Your task to perform on an android device: turn on location history Image 0: 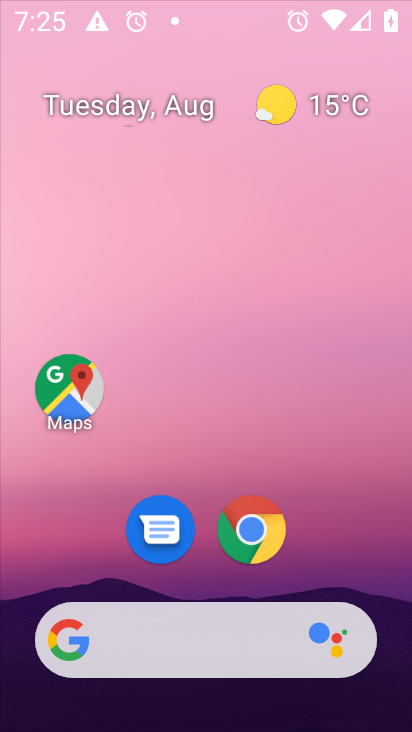
Step 0: press home button
Your task to perform on an android device: turn on location history Image 1: 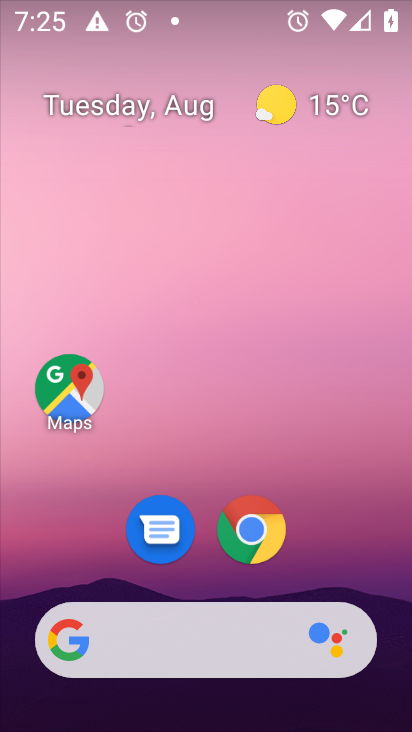
Step 1: drag from (215, 561) to (298, 67)
Your task to perform on an android device: turn on location history Image 2: 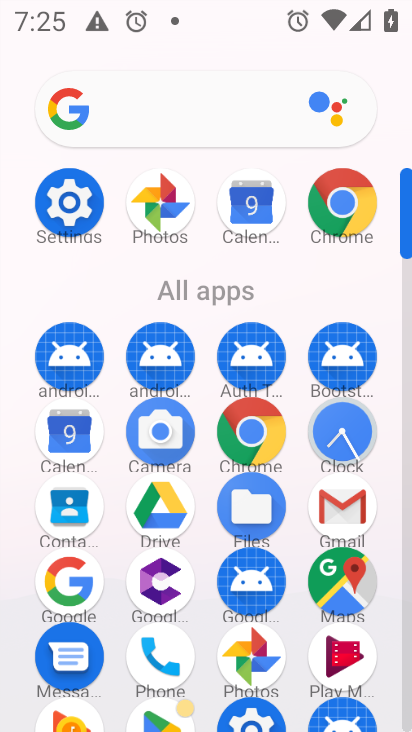
Step 2: click (53, 198)
Your task to perform on an android device: turn on location history Image 3: 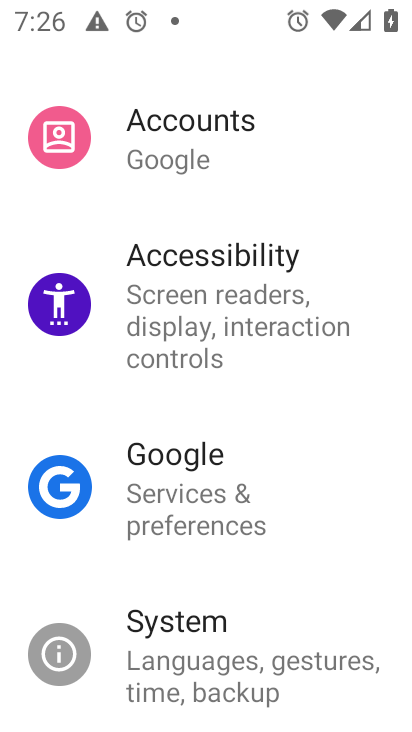
Step 3: drag from (331, 191) to (272, 679)
Your task to perform on an android device: turn on location history Image 4: 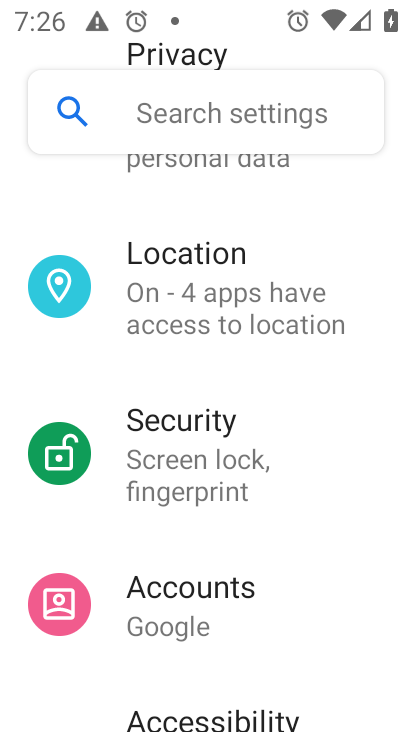
Step 4: click (181, 345)
Your task to perform on an android device: turn on location history Image 5: 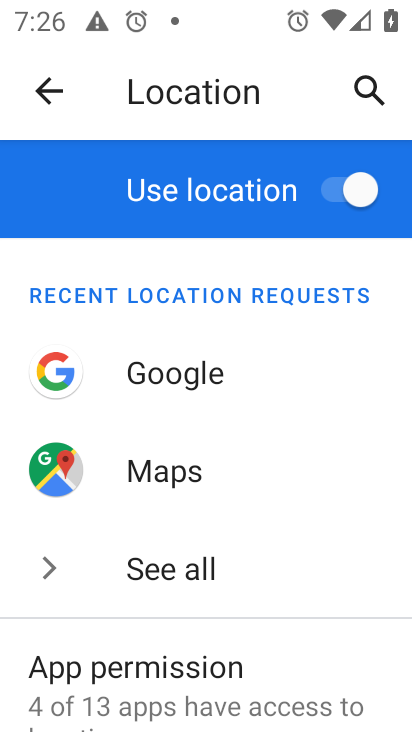
Step 5: drag from (285, 480) to (252, 5)
Your task to perform on an android device: turn on location history Image 6: 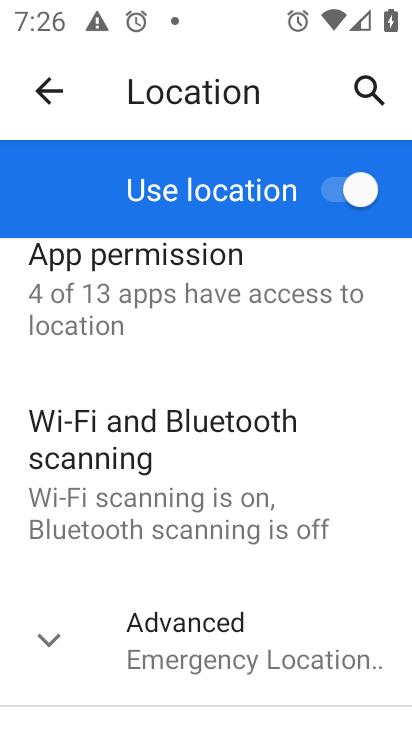
Step 6: drag from (325, 576) to (339, 139)
Your task to perform on an android device: turn on location history Image 7: 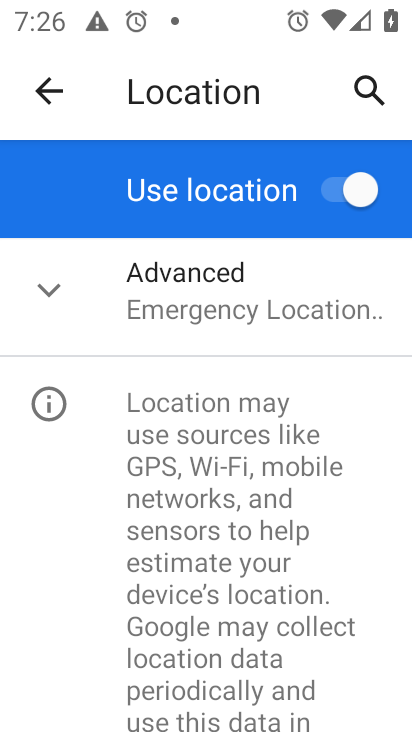
Step 7: click (196, 300)
Your task to perform on an android device: turn on location history Image 8: 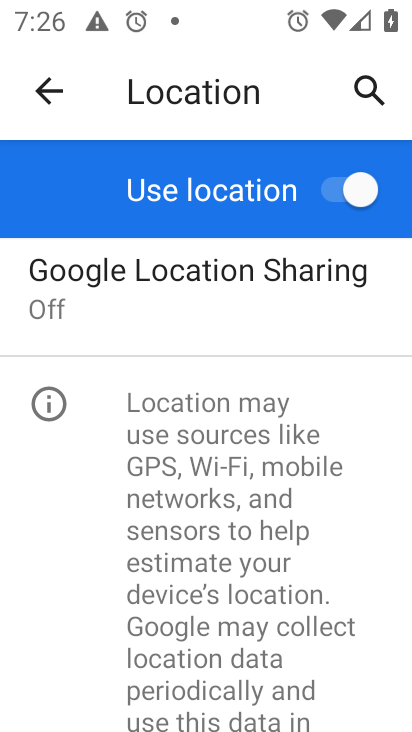
Step 8: drag from (349, 533) to (304, 23)
Your task to perform on an android device: turn on location history Image 9: 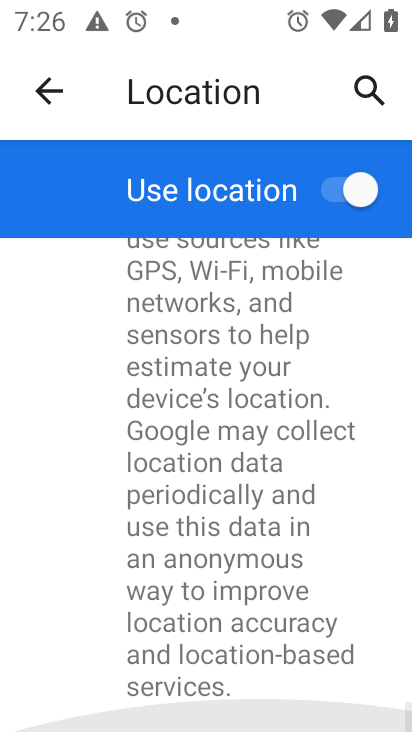
Step 9: drag from (198, 443) to (252, 11)
Your task to perform on an android device: turn on location history Image 10: 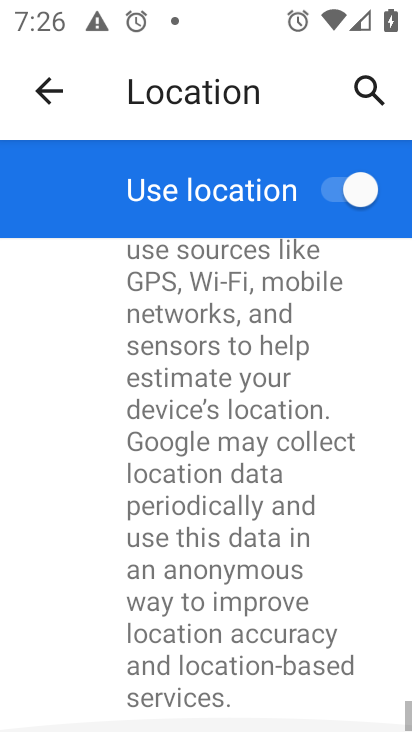
Step 10: drag from (236, 555) to (269, 56)
Your task to perform on an android device: turn on location history Image 11: 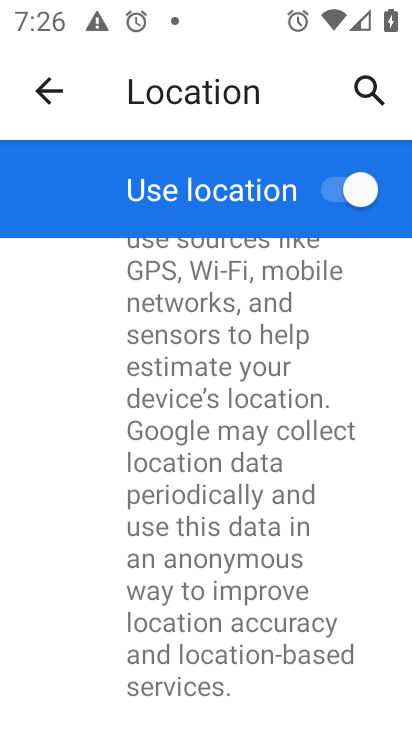
Step 11: drag from (242, 376) to (294, 88)
Your task to perform on an android device: turn on location history Image 12: 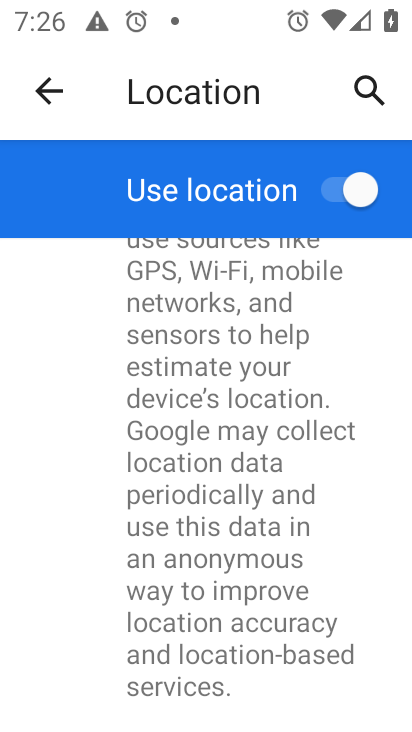
Step 12: click (46, 91)
Your task to perform on an android device: turn on location history Image 13: 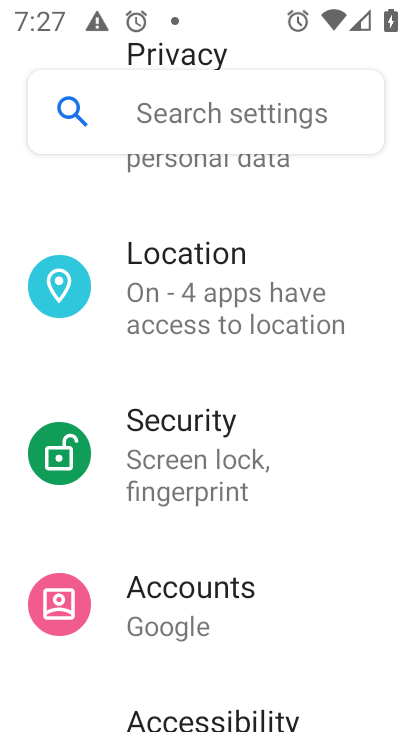
Step 13: click (167, 316)
Your task to perform on an android device: turn on location history Image 14: 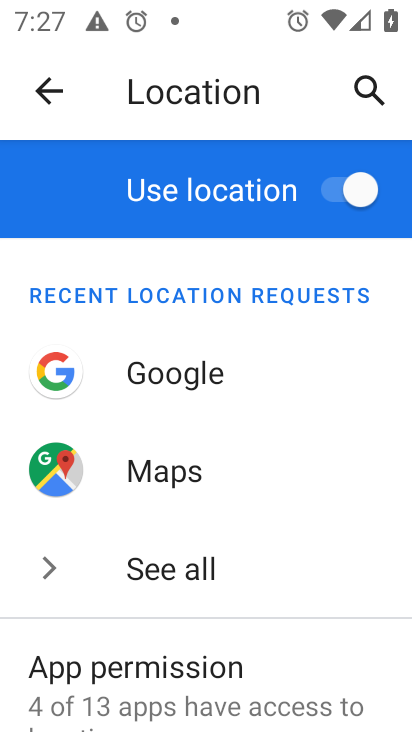
Step 14: drag from (319, 551) to (330, 96)
Your task to perform on an android device: turn on location history Image 15: 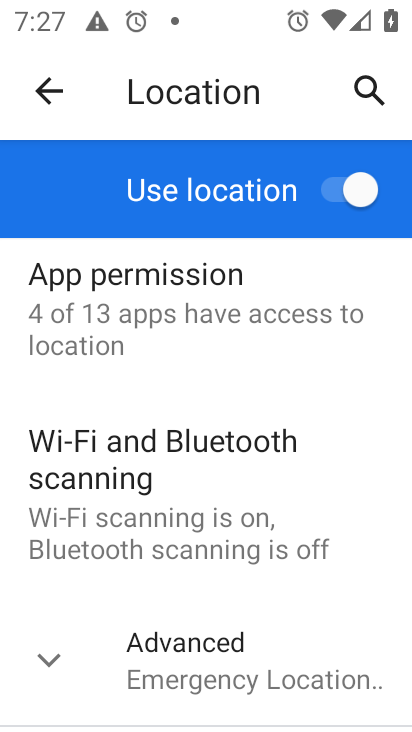
Step 15: drag from (296, 623) to (336, 220)
Your task to perform on an android device: turn on location history Image 16: 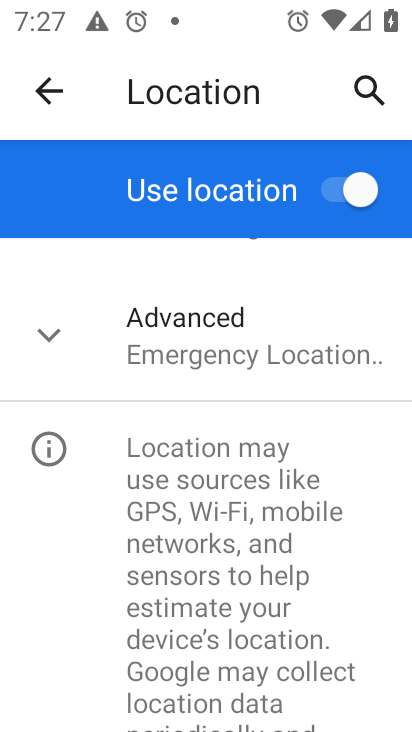
Step 16: click (195, 342)
Your task to perform on an android device: turn on location history Image 17: 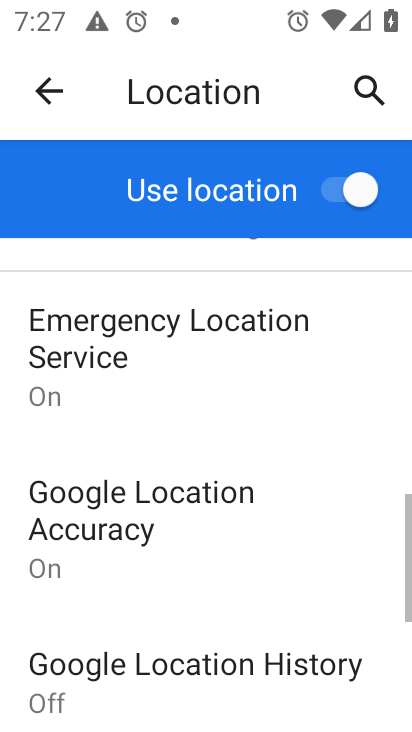
Step 17: drag from (285, 580) to (330, 335)
Your task to perform on an android device: turn on location history Image 18: 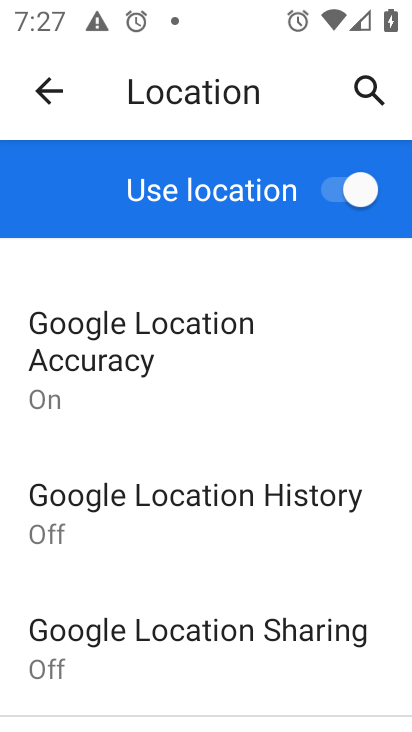
Step 18: click (178, 504)
Your task to perform on an android device: turn on location history Image 19: 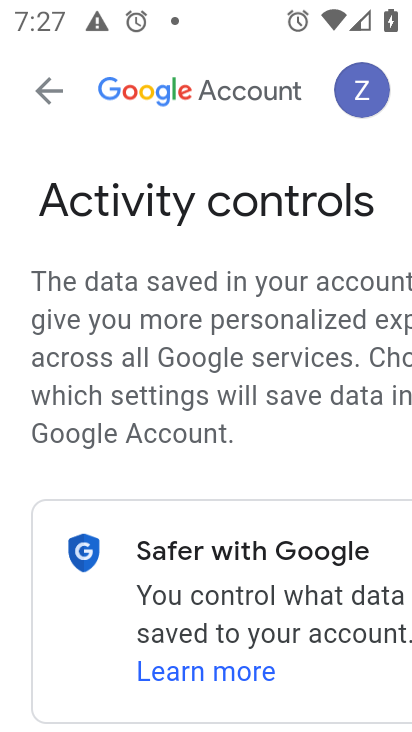
Step 19: drag from (278, 574) to (300, 129)
Your task to perform on an android device: turn on location history Image 20: 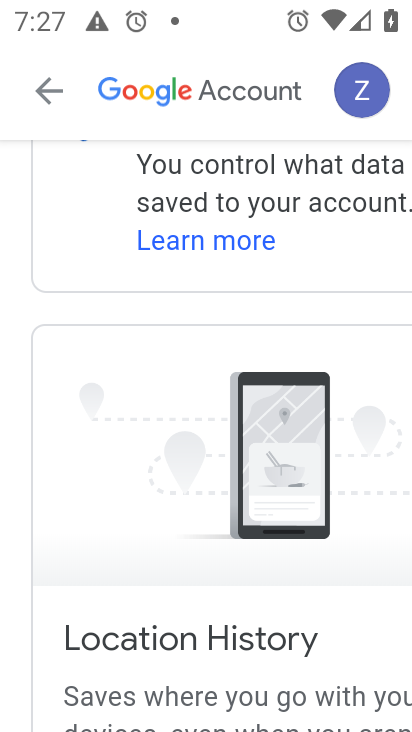
Step 20: drag from (244, 596) to (251, 119)
Your task to perform on an android device: turn on location history Image 21: 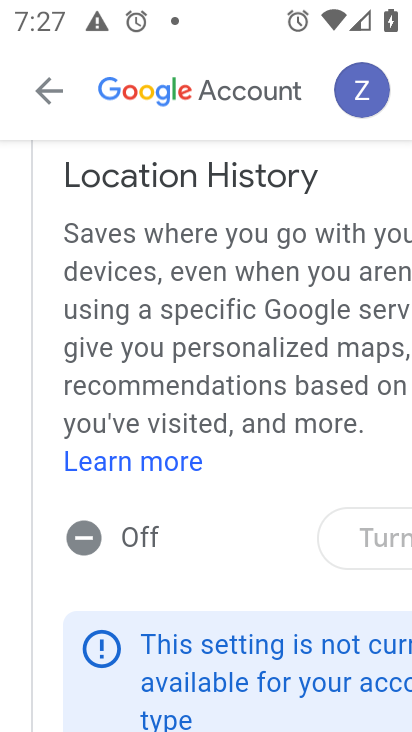
Step 21: click (383, 542)
Your task to perform on an android device: turn on location history Image 22: 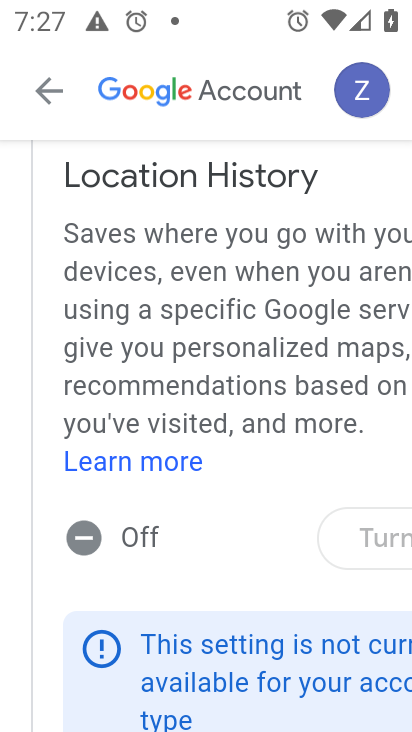
Step 22: task complete